Your task to perform on an android device: toggle translation in the chrome app Image 0: 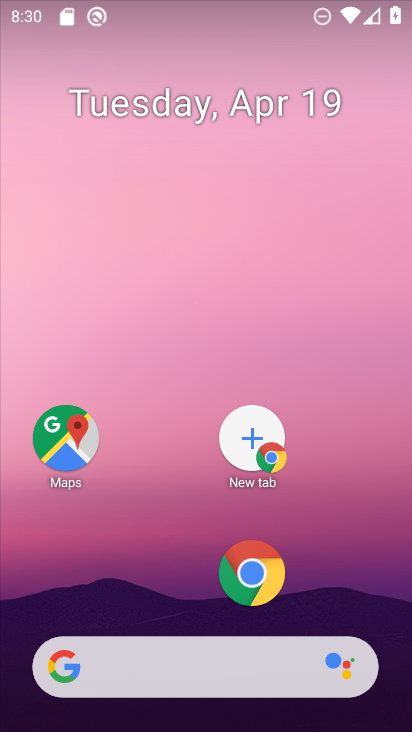
Step 0: click (260, 569)
Your task to perform on an android device: toggle translation in the chrome app Image 1: 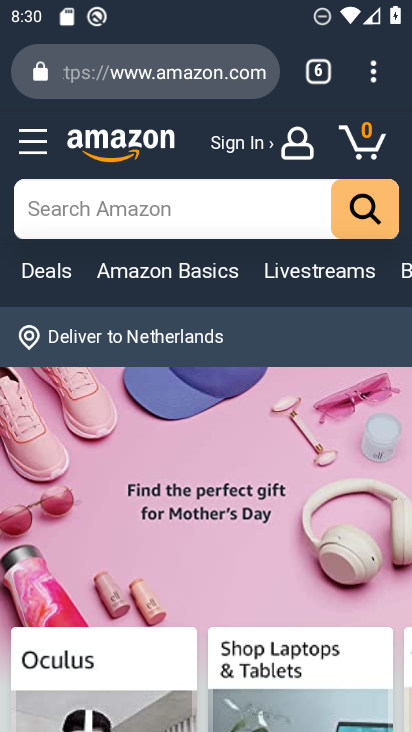
Step 1: press home button
Your task to perform on an android device: toggle translation in the chrome app Image 2: 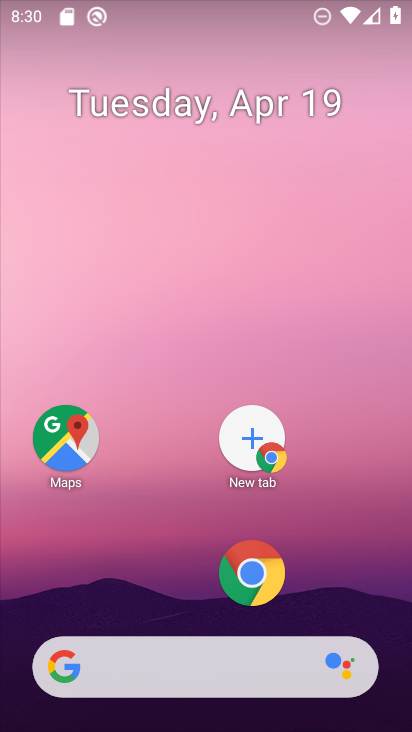
Step 2: click (258, 580)
Your task to perform on an android device: toggle translation in the chrome app Image 3: 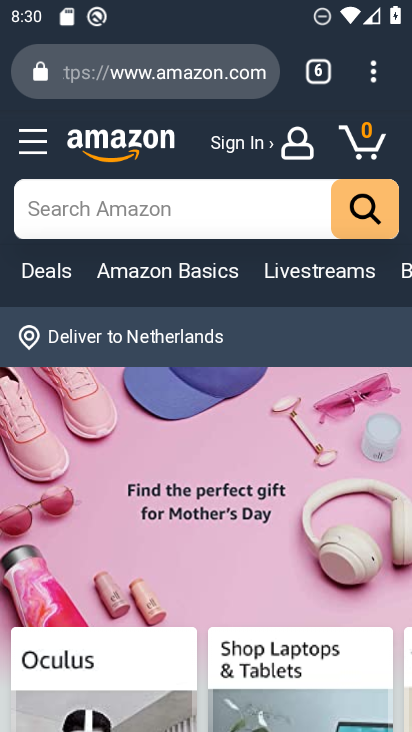
Step 3: click (380, 67)
Your task to perform on an android device: toggle translation in the chrome app Image 4: 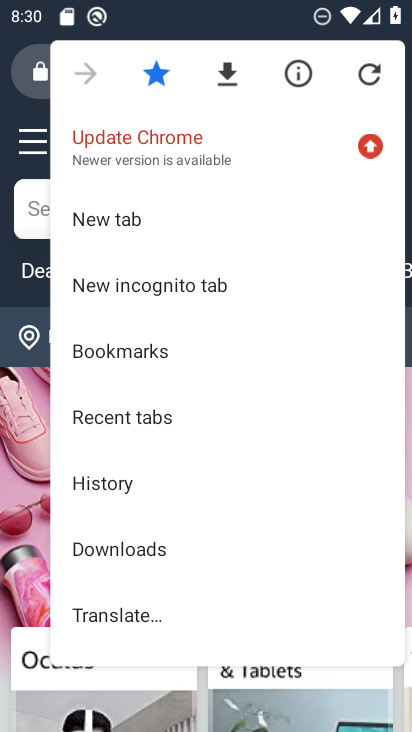
Step 4: drag from (138, 525) to (235, 107)
Your task to perform on an android device: toggle translation in the chrome app Image 5: 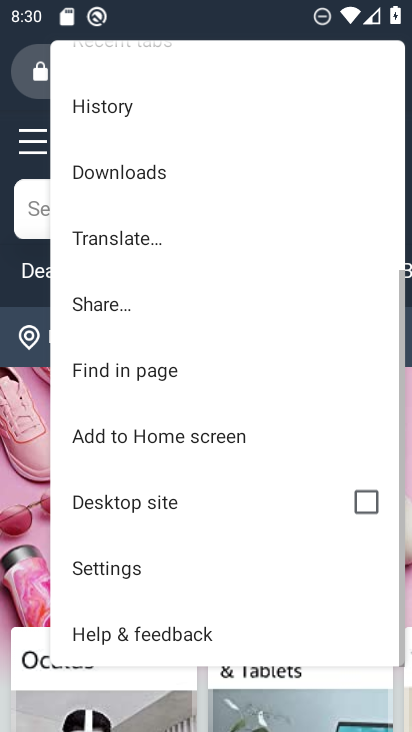
Step 5: click (116, 566)
Your task to perform on an android device: toggle translation in the chrome app Image 6: 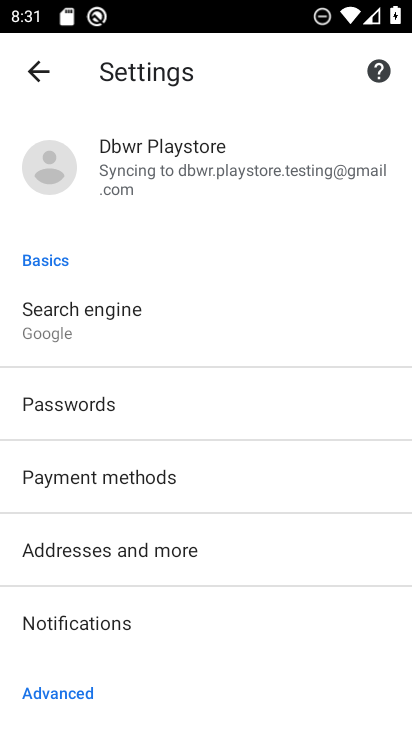
Step 6: drag from (167, 650) to (242, 258)
Your task to perform on an android device: toggle translation in the chrome app Image 7: 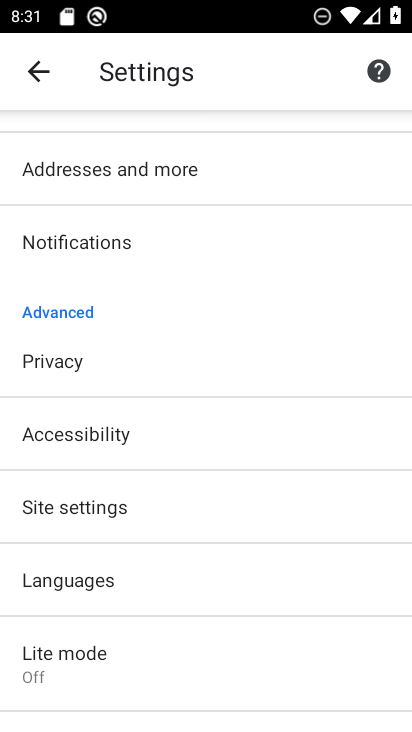
Step 7: click (157, 581)
Your task to perform on an android device: toggle translation in the chrome app Image 8: 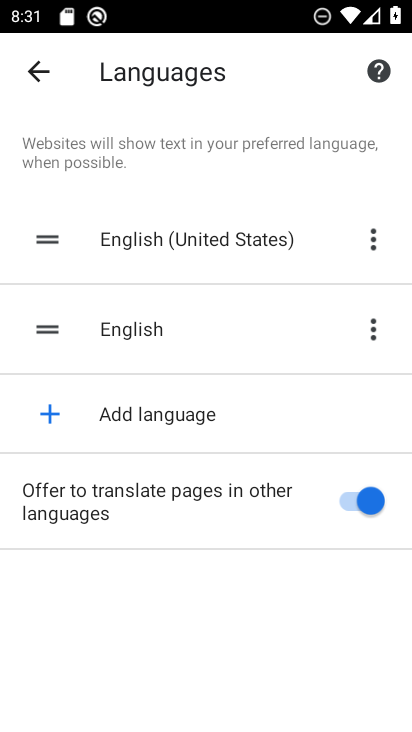
Step 8: click (379, 497)
Your task to perform on an android device: toggle translation in the chrome app Image 9: 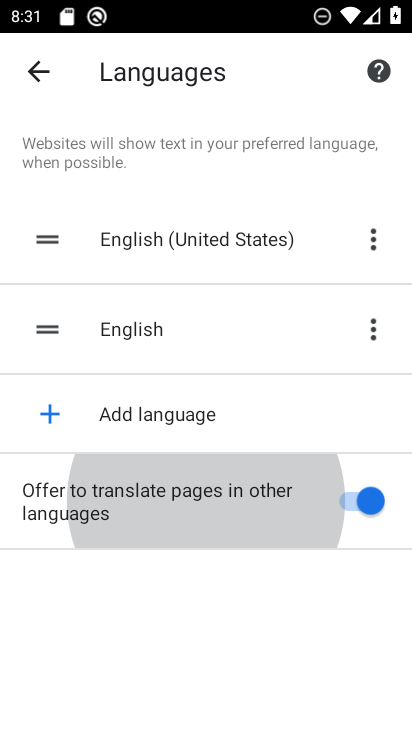
Step 9: click (379, 497)
Your task to perform on an android device: toggle translation in the chrome app Image 10: 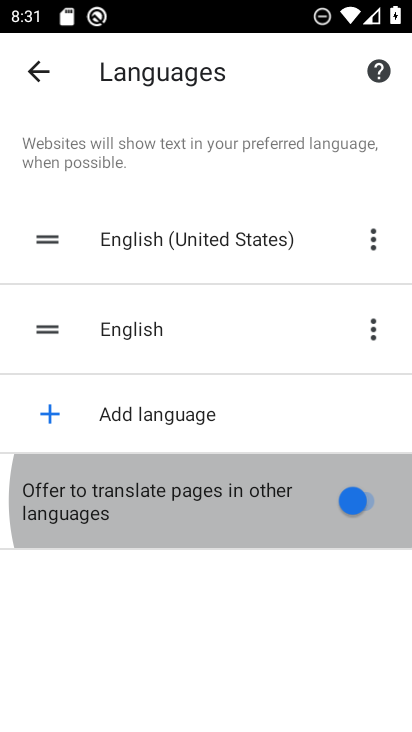
Step 10: click (379, 497)
Your task to perform on an android device: toggle translation in the chrome app Image 11: 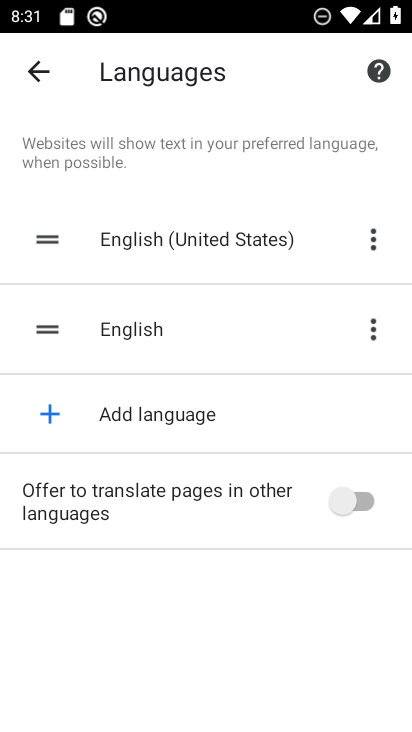
Step 11: task complete